Your task to perform on an android device: toggle show notifications on the lock screen Image 0: 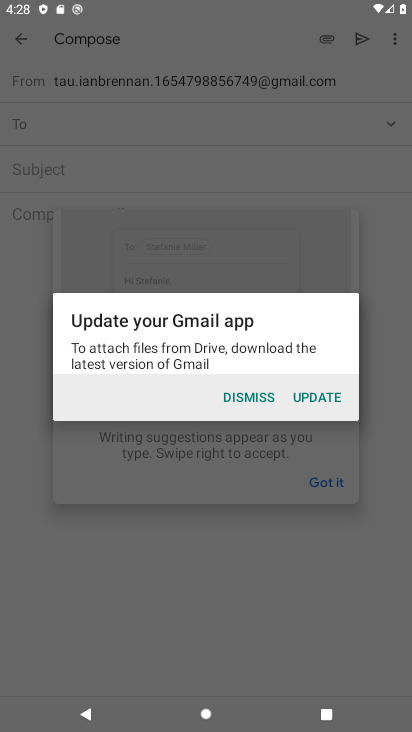
Step 0: press home button
Your task to perform on an android device: toggle show notifications on the lock screen Image 1: 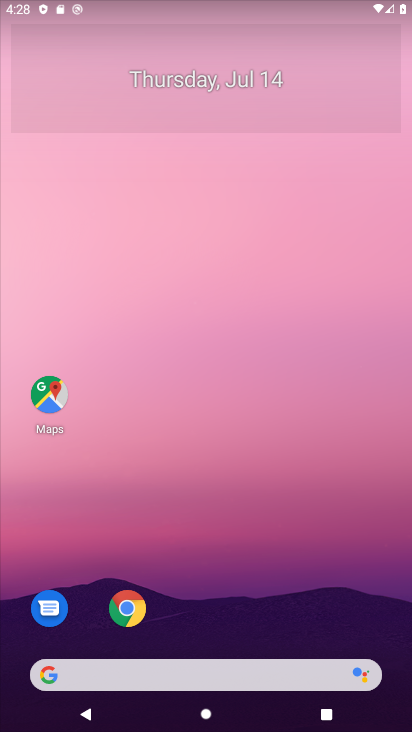
Step 1: drag from (204, 630) to (280, 59)
Your task to perform on an android device: toggle show notifications on the lock screen Image 2: 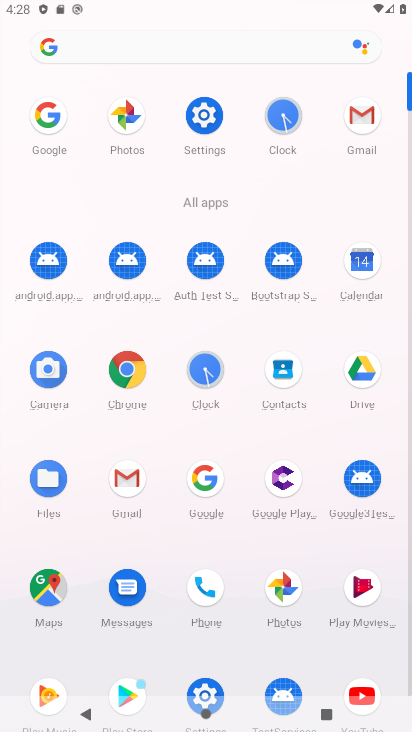
Step 2: click (220, 116)
Your task to perform on an android device: toggle show notifications on the lock screen Image 3: 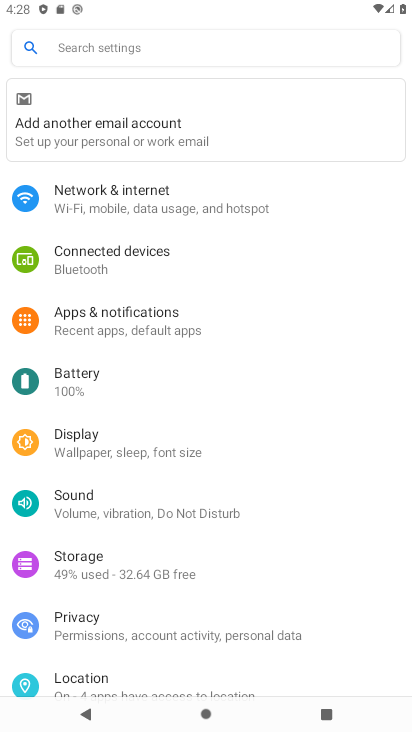
Step 3: click (174, 345)
Your task to perform on an android device: toggle show notifications on the lock screen Image 4: 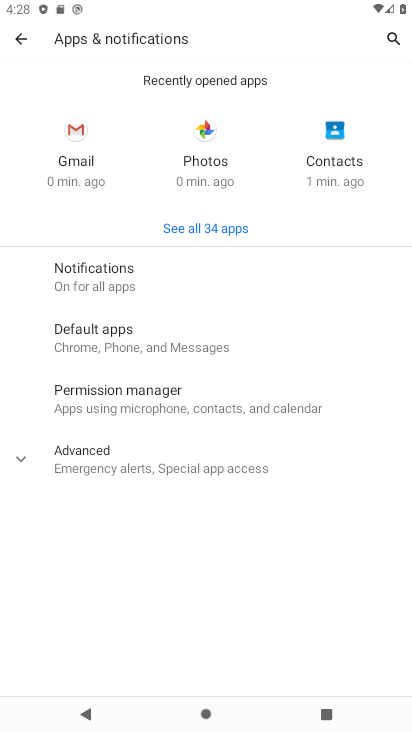
Step 4: click (109, 289)
Your task to perform on an android device: toggle show notifications on the lock screen Image 5: 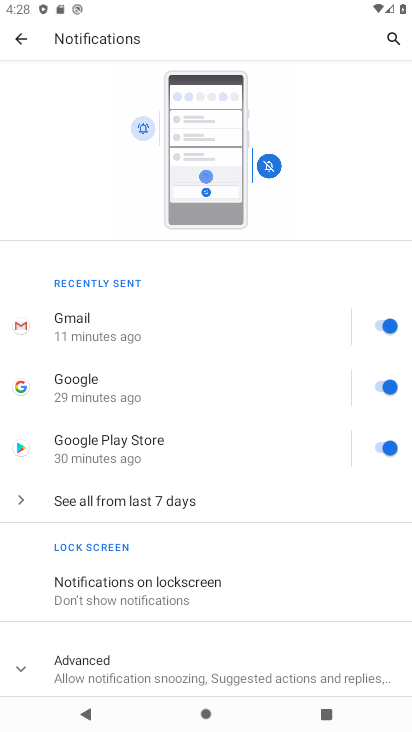
Step 5: drag from (159, 593) to (183, 359)
Your task to perform on an android device: toggle show notifications on the lock screen Image 6: 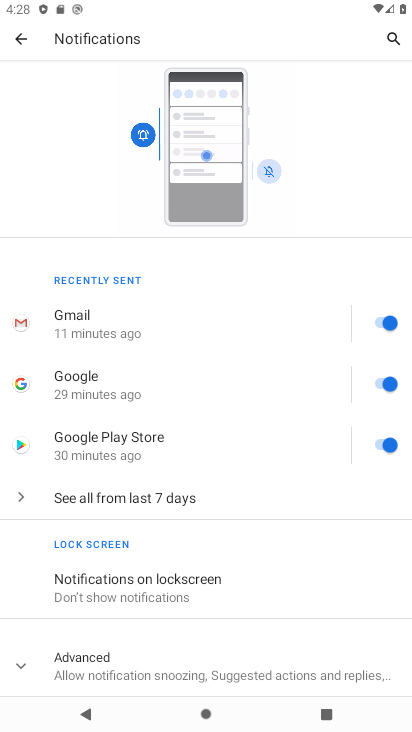
Step 6: click (114, 657)
Your task to perform on an android device: toggle show notifications on the lock screen Image 7: 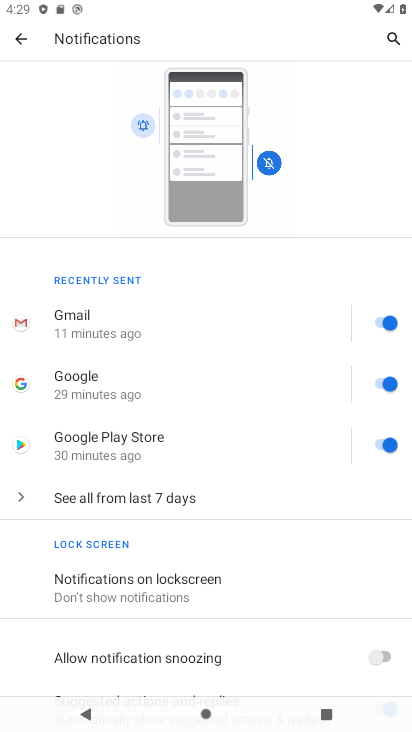
Step 7: click (161, 575)
Your task to perform on an android device: toggle show notifications on the lock screen Image 8: 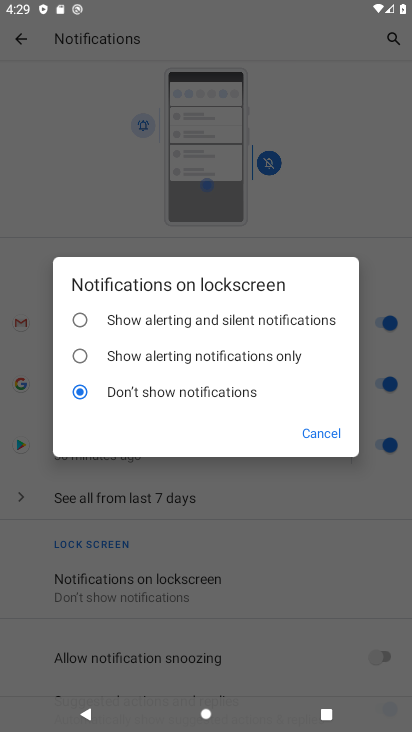
Step 8: click (107, 325)
Your task to perform on an android device: toggle show notifications on the lock screen Image 9: 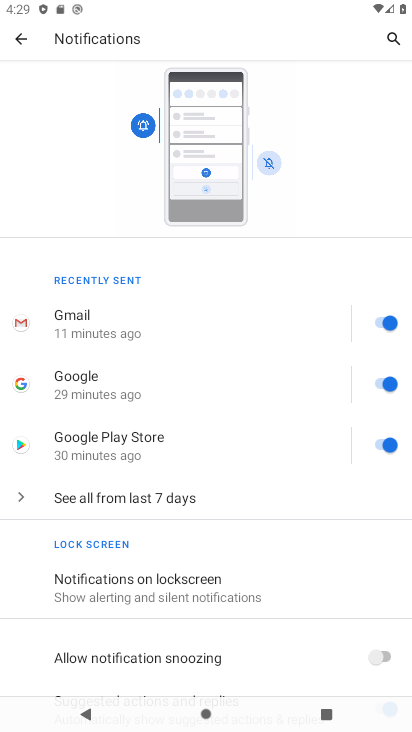
Step 9: task complete